Your task to perform on an android device: set default search engine in the chrome app Image 0: 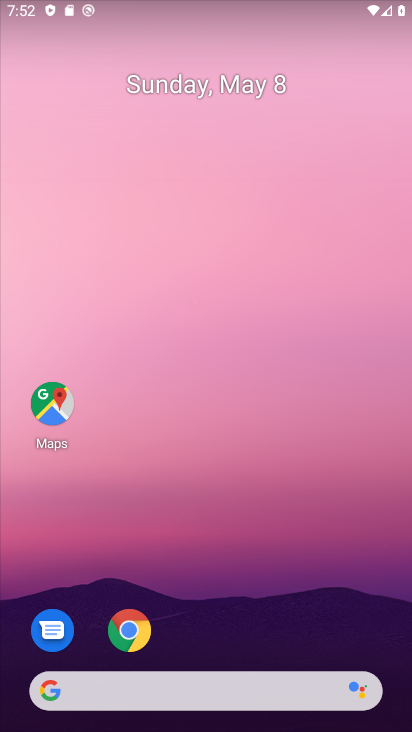
Step 0: click (149, 618)
Your task to perform on an android device: set default search engine in the chrome app Image 1: 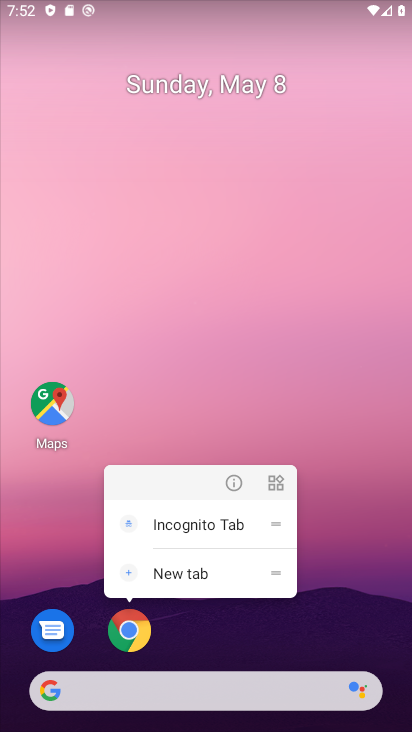
Step 1: click (122, 631)
Your task to perform on an android device: set default search engine in the chrome app Image 2: 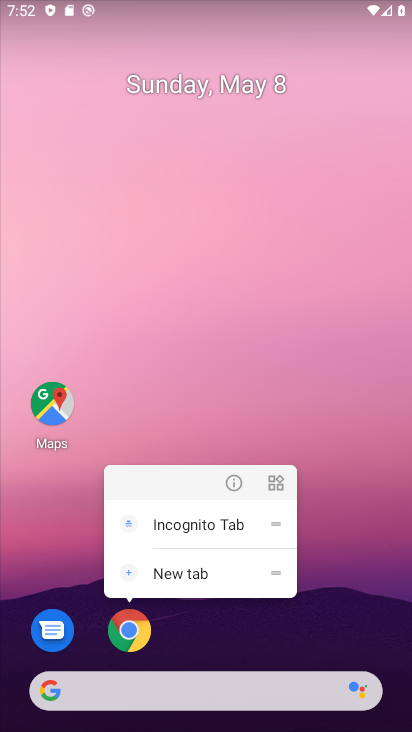
Step 2: click (130, 643)
Your task to perform on an android device: set default search engine in the chrome app Image 3: 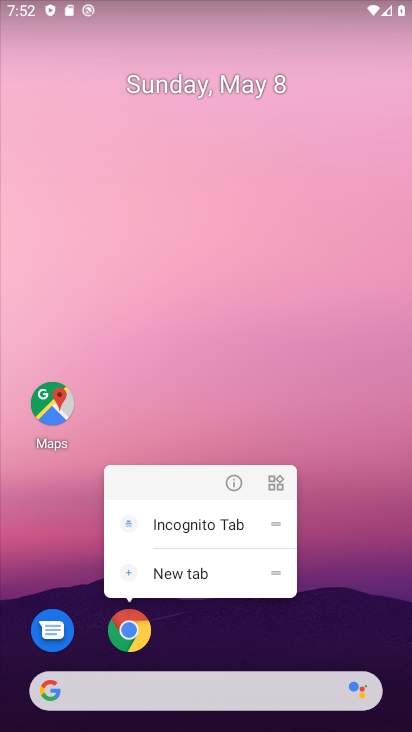
Step 3: click (141, 633)
Your task to perform on an android device: set default search engine in the chrome app Image 4: 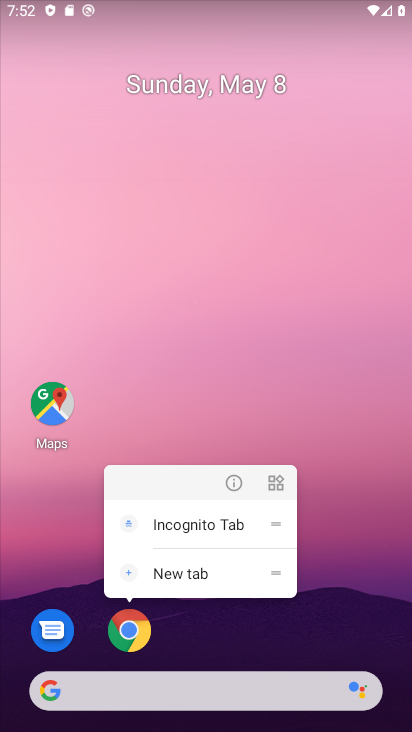
Step 4: click (138, 631)
Your task to perform on an android device: set default search engine in the chrome app Image 5: 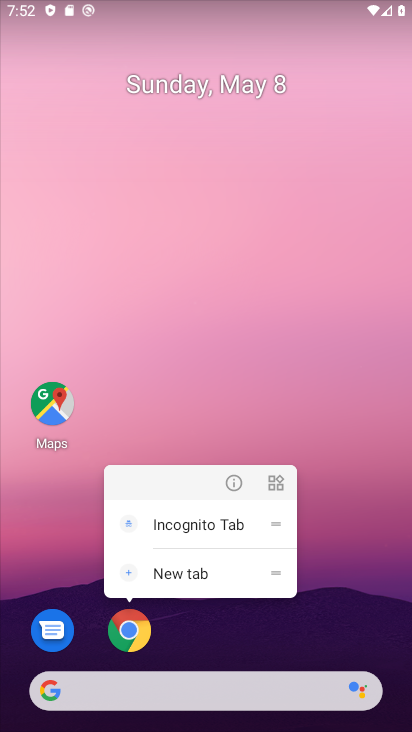
Step 5: click (129, 629)
Your task to perform on an android device: set default search engine in the chrome app Image 6: 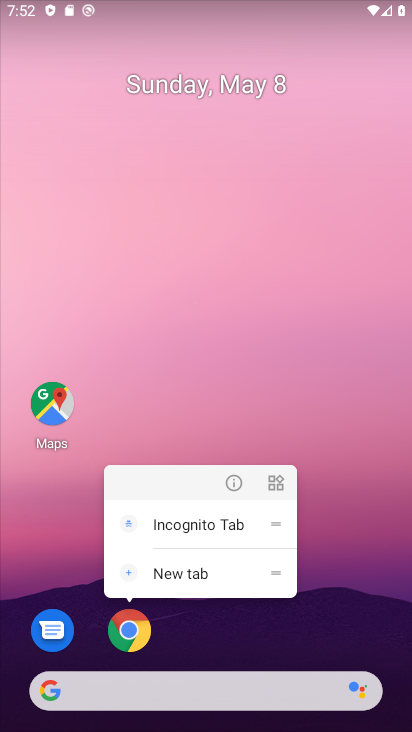
Step 6: click (121, 630)
Your task to perform on an android device: set default search engine in the chrome app Image 7: 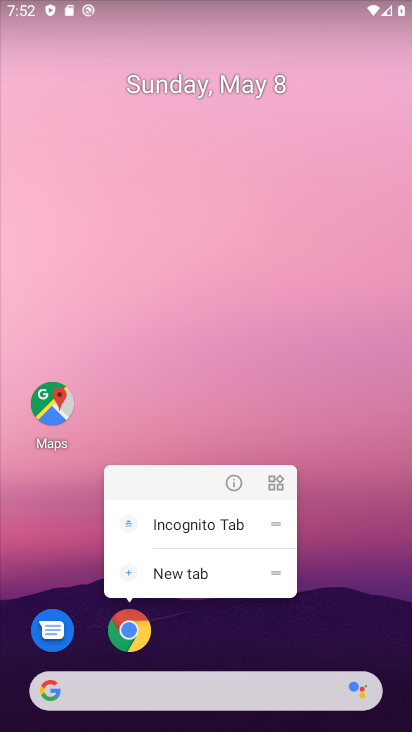
Step 7: click (123, 629)
Your task to perform on an android device: set default search engine in the chrome app Image 8: 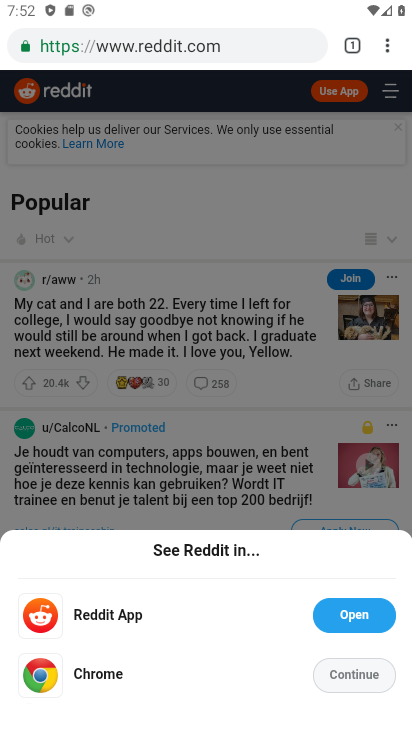
Step 8: click (388, 59)
Your task to perform on an android device: set default search engine in the chrome app Image 9: 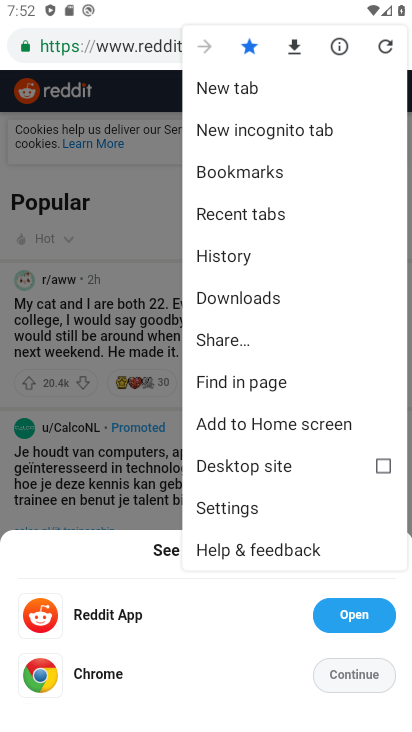
Step 9: click (250, 502)
Your task to perform on an android device: set default search engine in the chrome app Image 10: 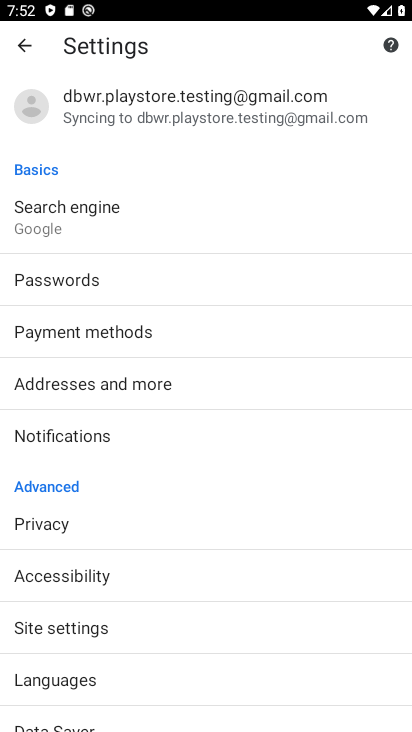
Step 10: click (45, 192)
Your task to perform on an android device: set default search engine in the chrome app Image 11: 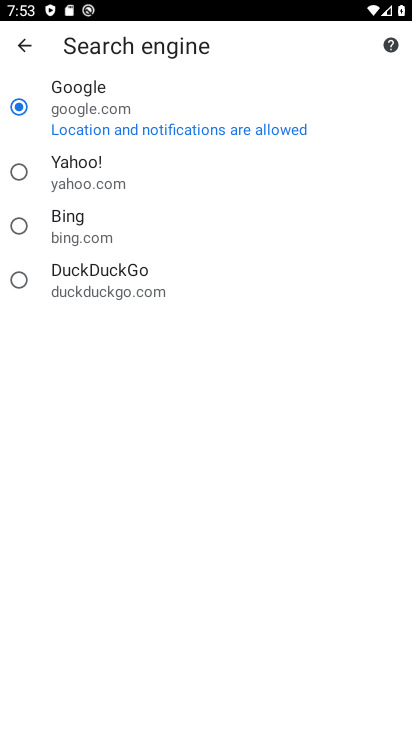
Step 11: task complete